Your task to perform on an android device: open a new tab in the chrome app Image 0: 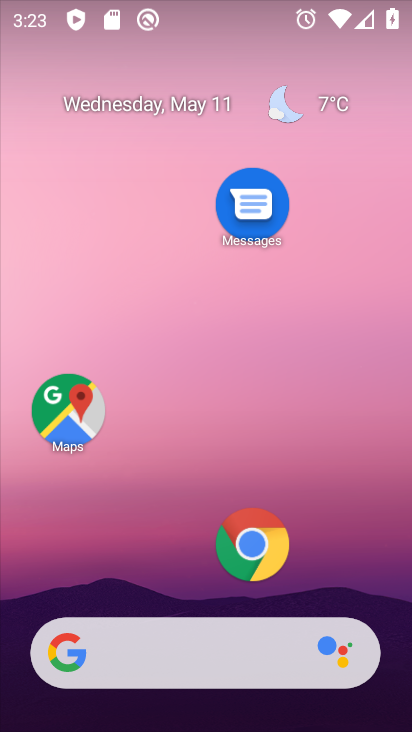
Step 0: click (247, 539)
Your task to perform on an android device: open a new tab in the chrome app Image 1: 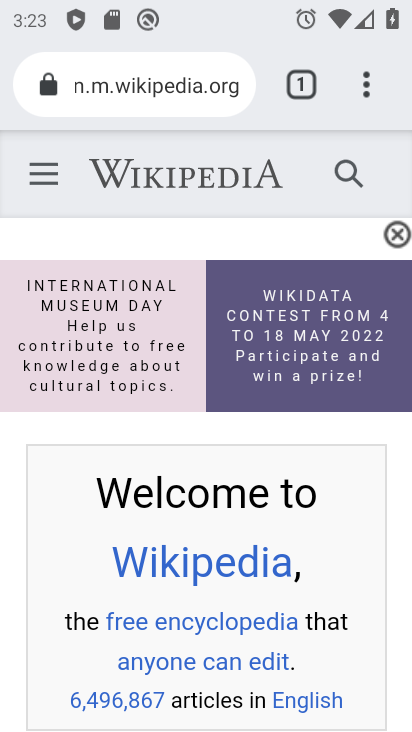
Step 1: click (309, 78)
Your task to perform on an android device: open a new tab in the chrome app Image 2: 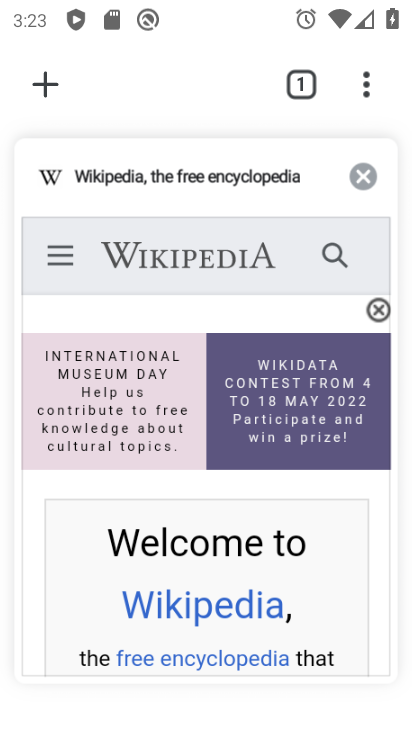
Step 2: click (58, 67)
Your task to perform on an android device: open a new tab in the chrome app Image 3: 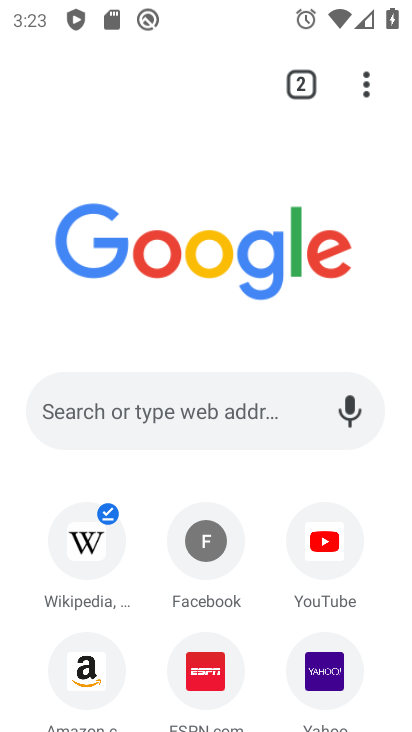
Step 3: task complete